Your task to perform on an android device: What's the weather? Image 0: 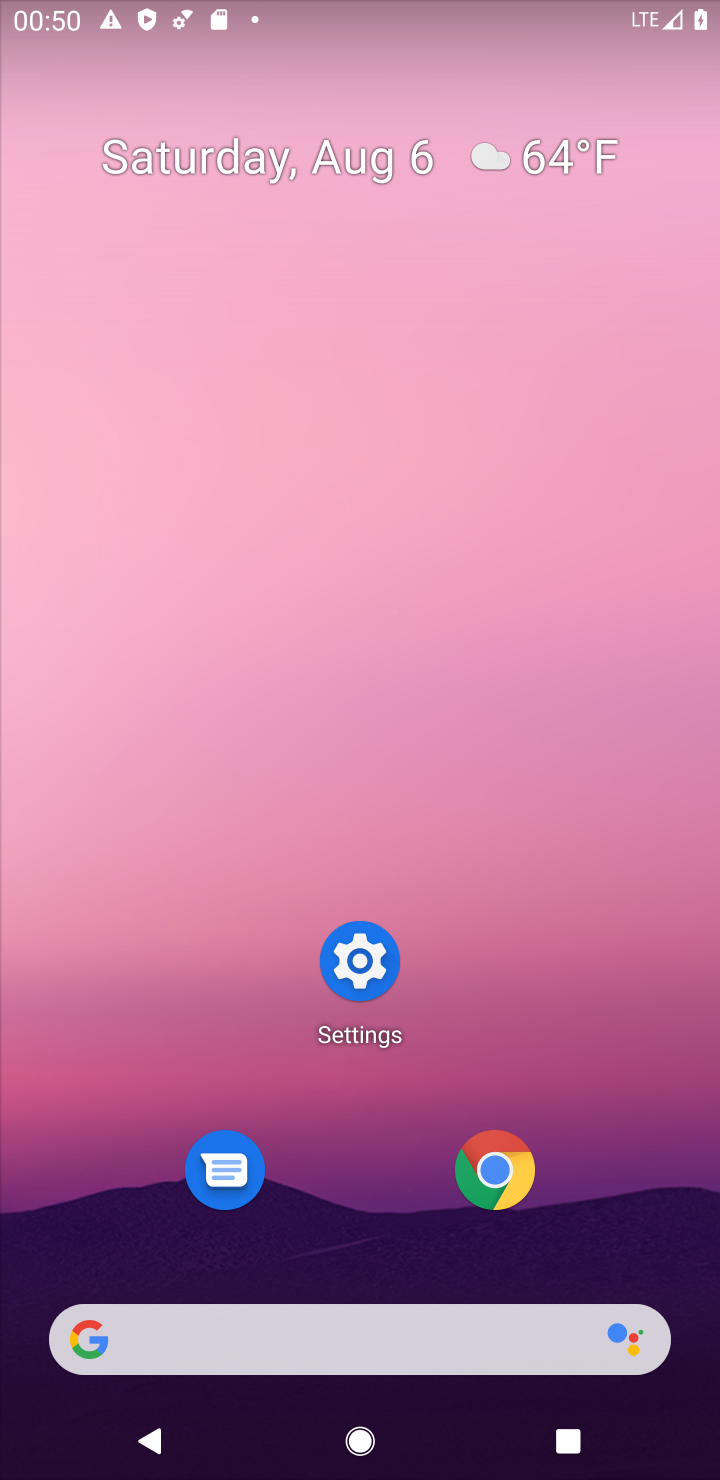
Step 0: click (305, 1357)
Your task to perform on an android device: What's the weather? Image 1: 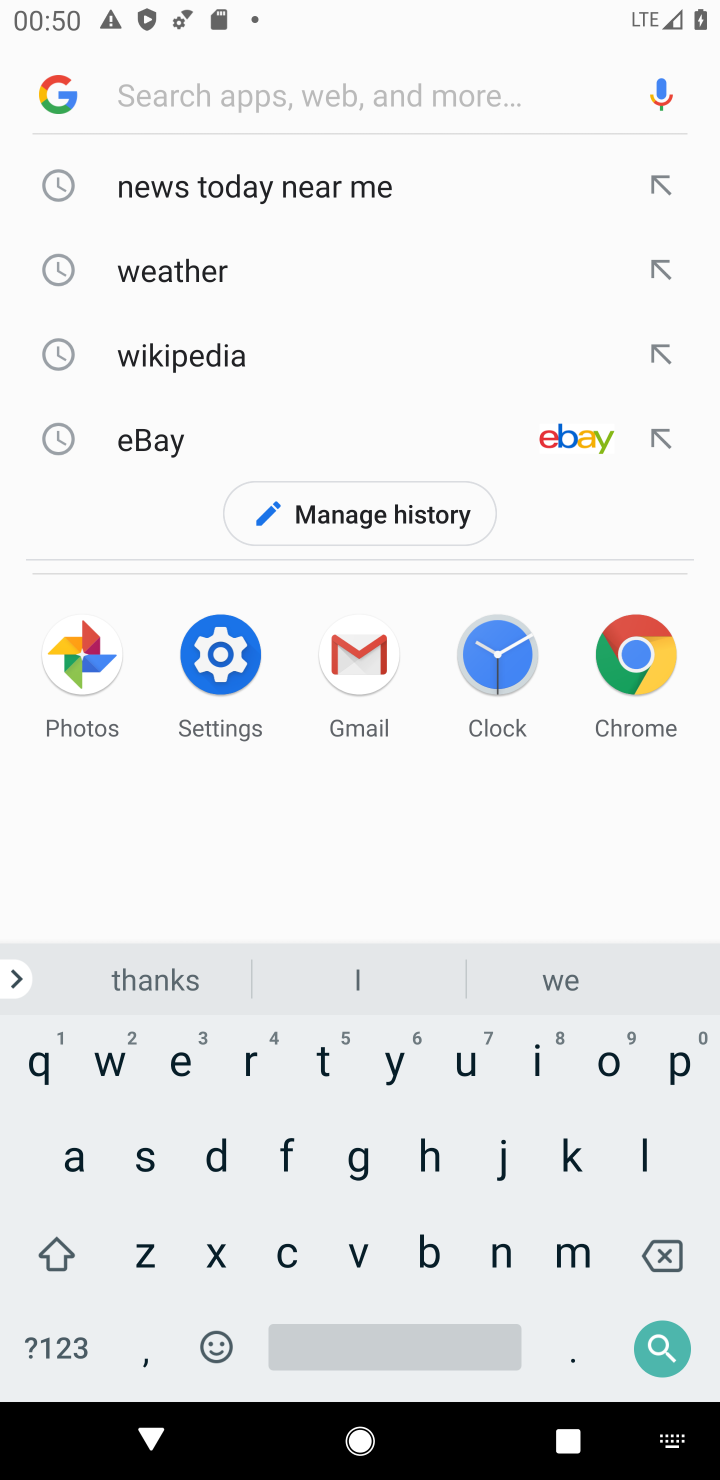
Step 1: click (198, 260)
Your task to perform on an android device: What's the weather? Image 2: 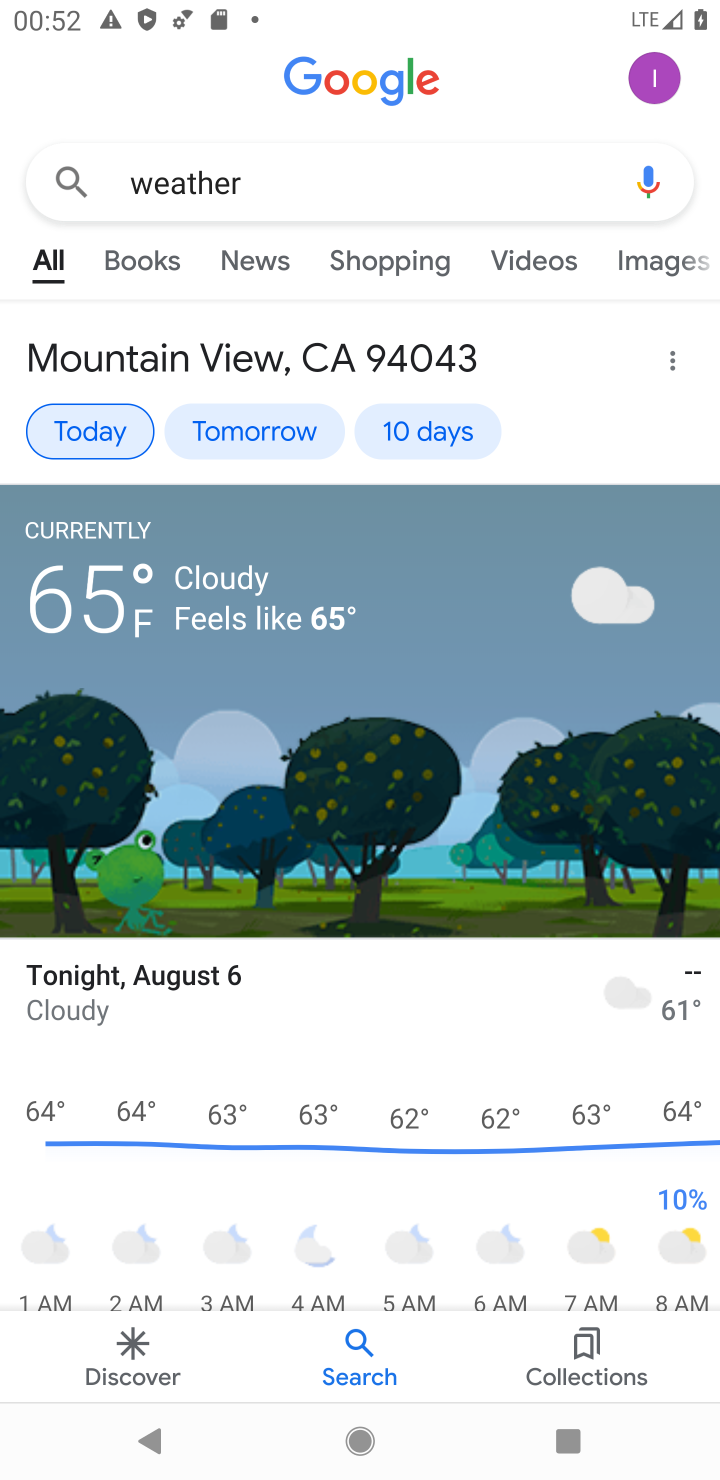
Step 2: task complete